Your task to perform on an android device: find photos in the google photos app Image 0: 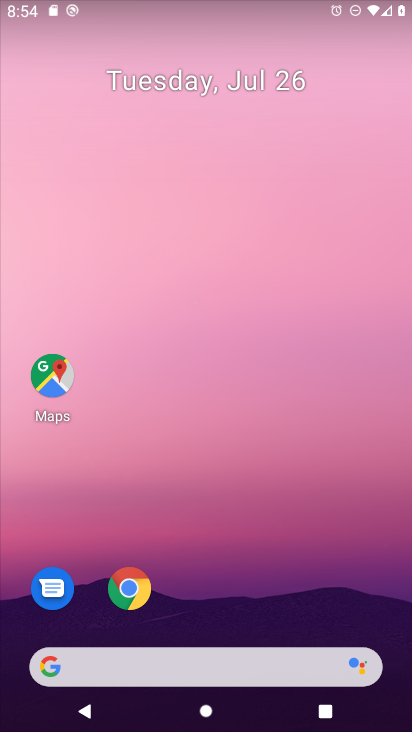
Step 0: drag from (209, 618) to (239, 214)
Your task to perform on an android device: find photos in the google photos app Image 1: 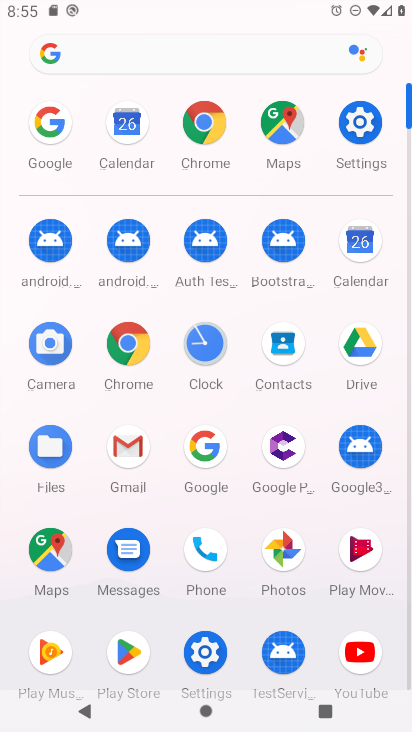
Step 1: click (272, 562)
Your task to perform on an android device: find photos in the google photos app Image 2: 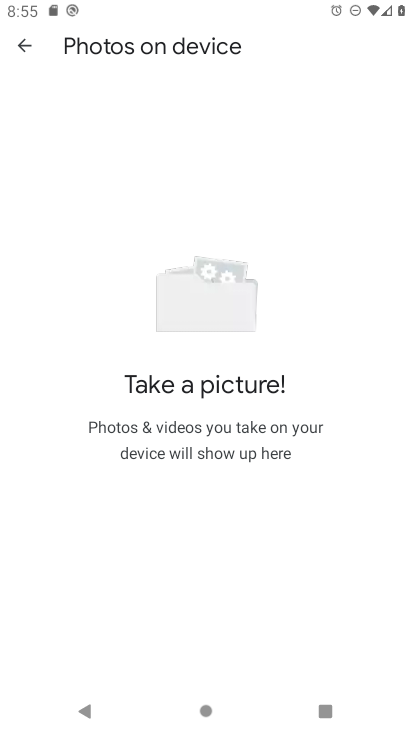
Step 2: click (34, 44)
Your task to perform on an android device: find photos in the google photos app Image 3: 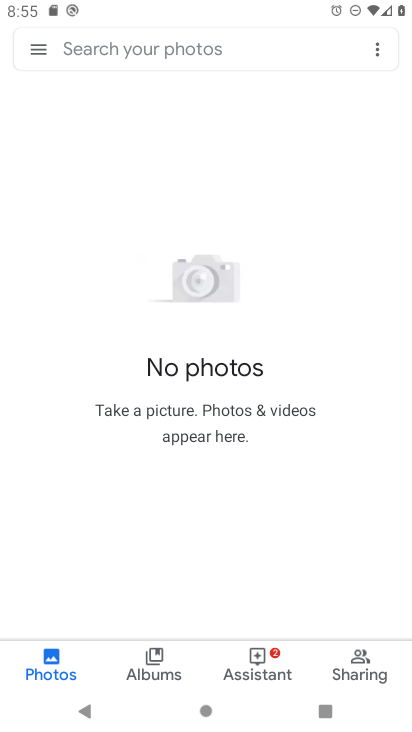
Step 3: click (51, 46)
Your task to perform on an android device: find photos in the google photos app Image 4: 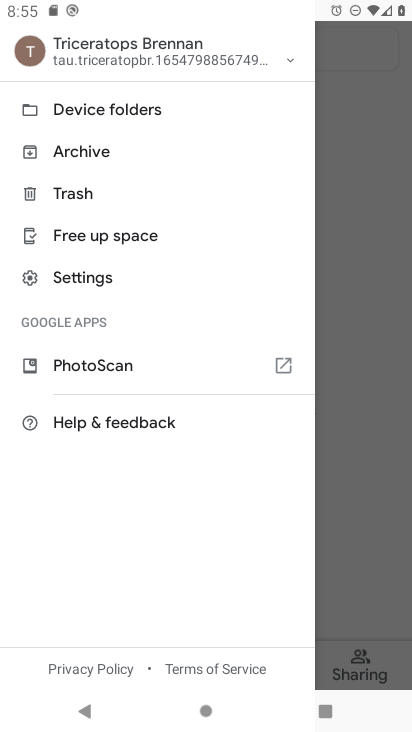
Step 4: click (338, 231)
Your task to perform on an android device: find photos in the google photos app Image 5: 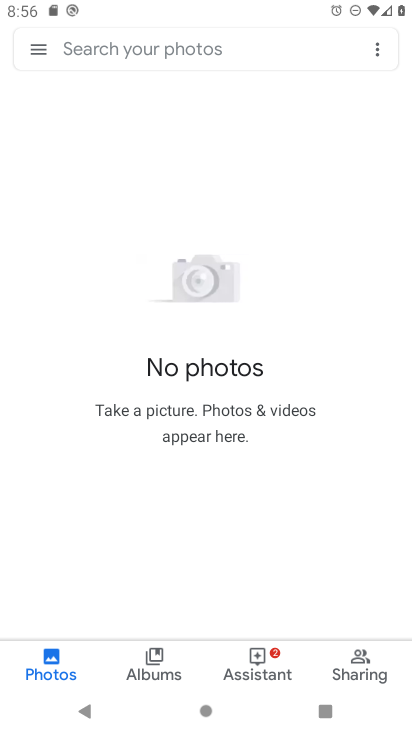
Step 5: task complete